Your task to perform on an android device: Open ESPN.com Image 0: 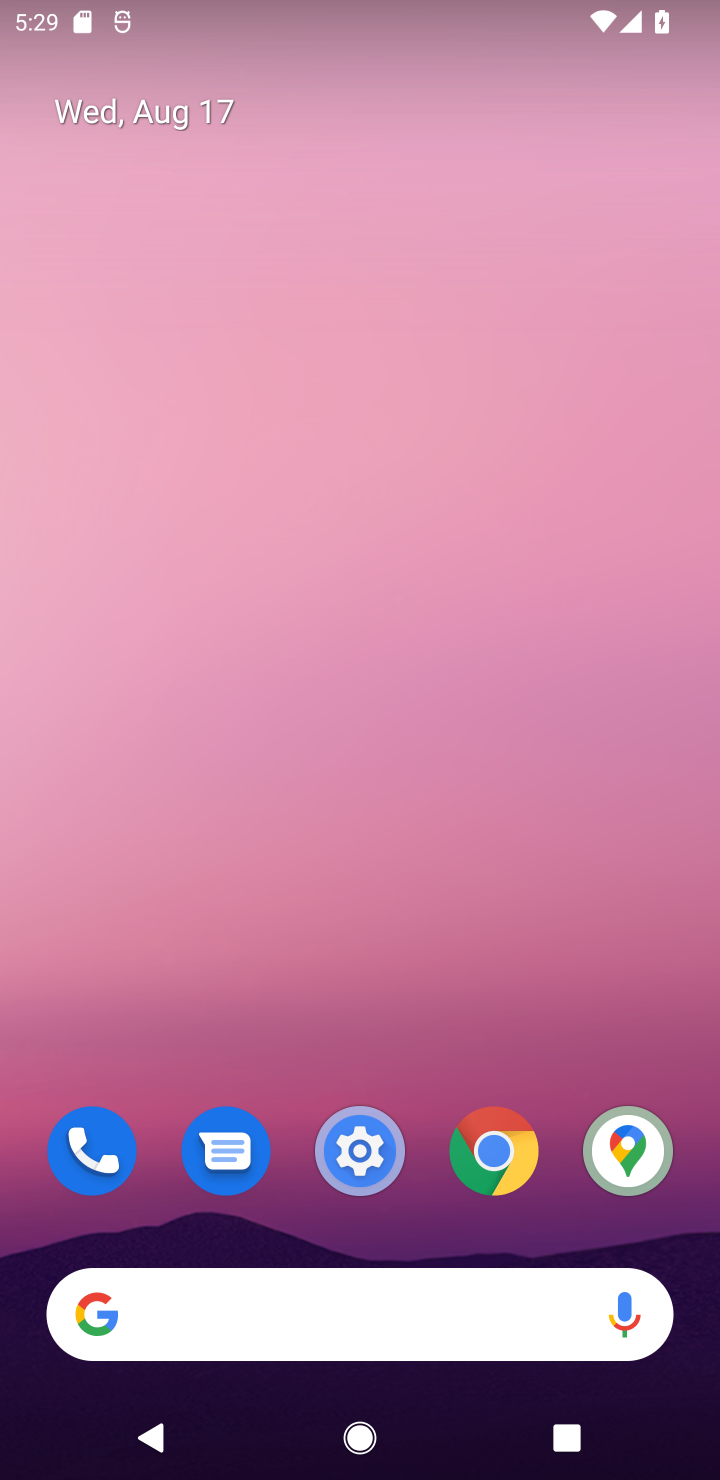
Step 0: drag from (422, 1256) to (435, 484)
Your task to perform on an android device: Open ESPN.com Image 1: 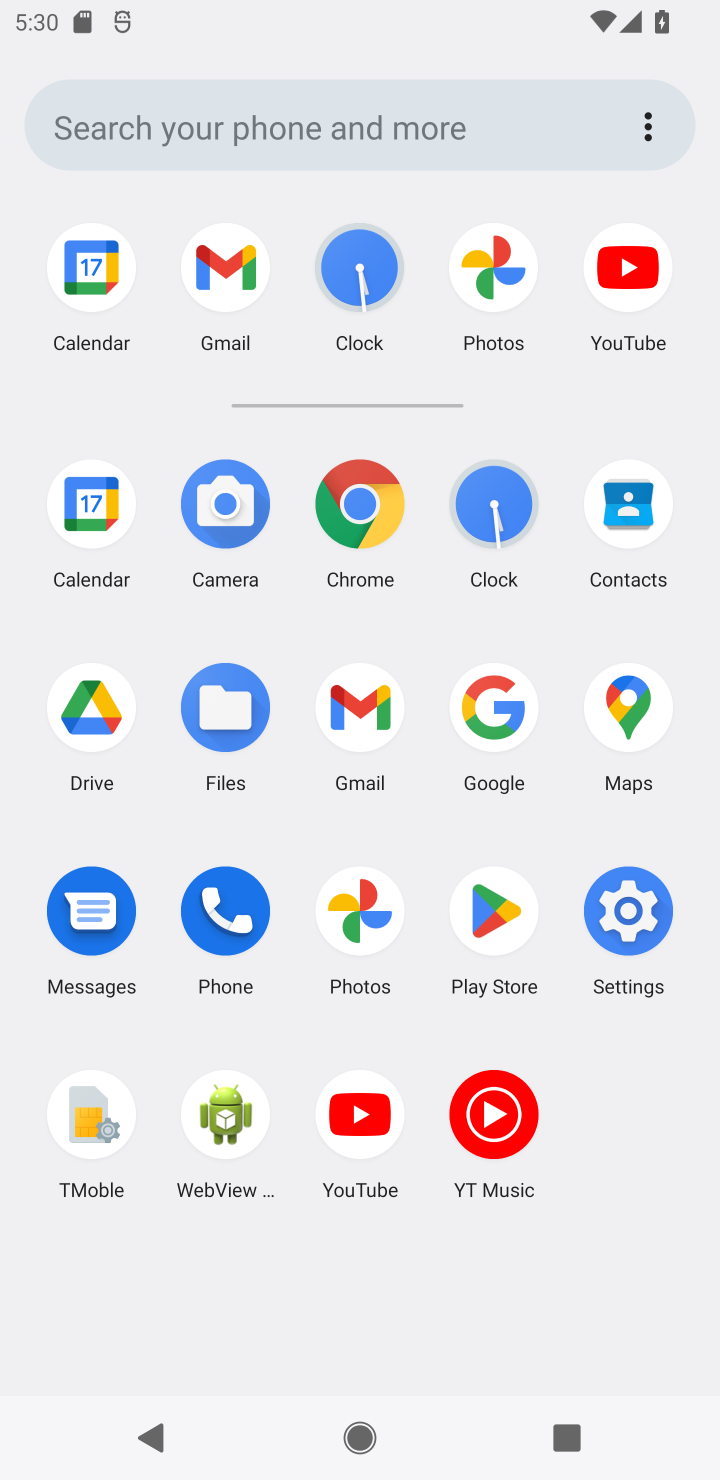
Step 1: click (369, 502)
Your task to perform on an android device: Open ESPN.com Image 2: 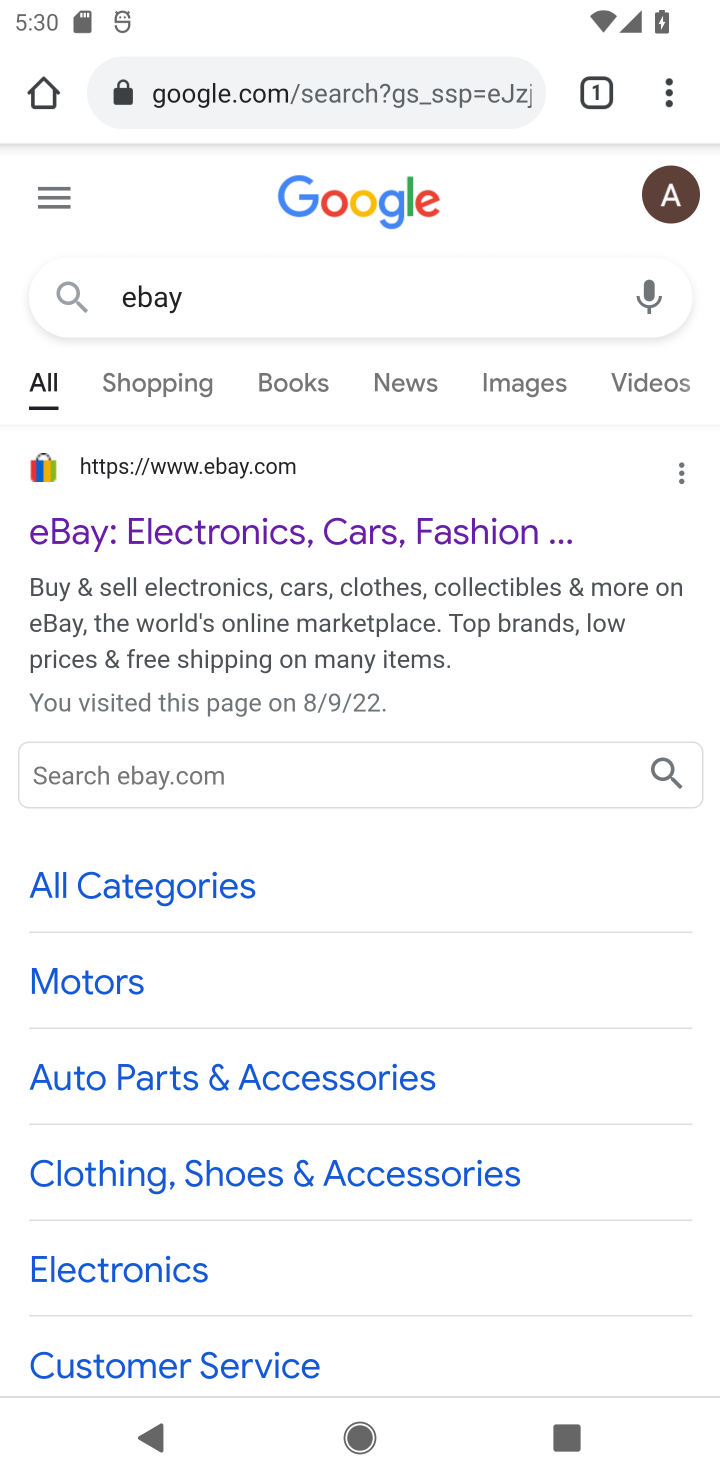
Step 2: click (290, 124)
Your task to perform on an android device: Open ESPN.com Image 3: 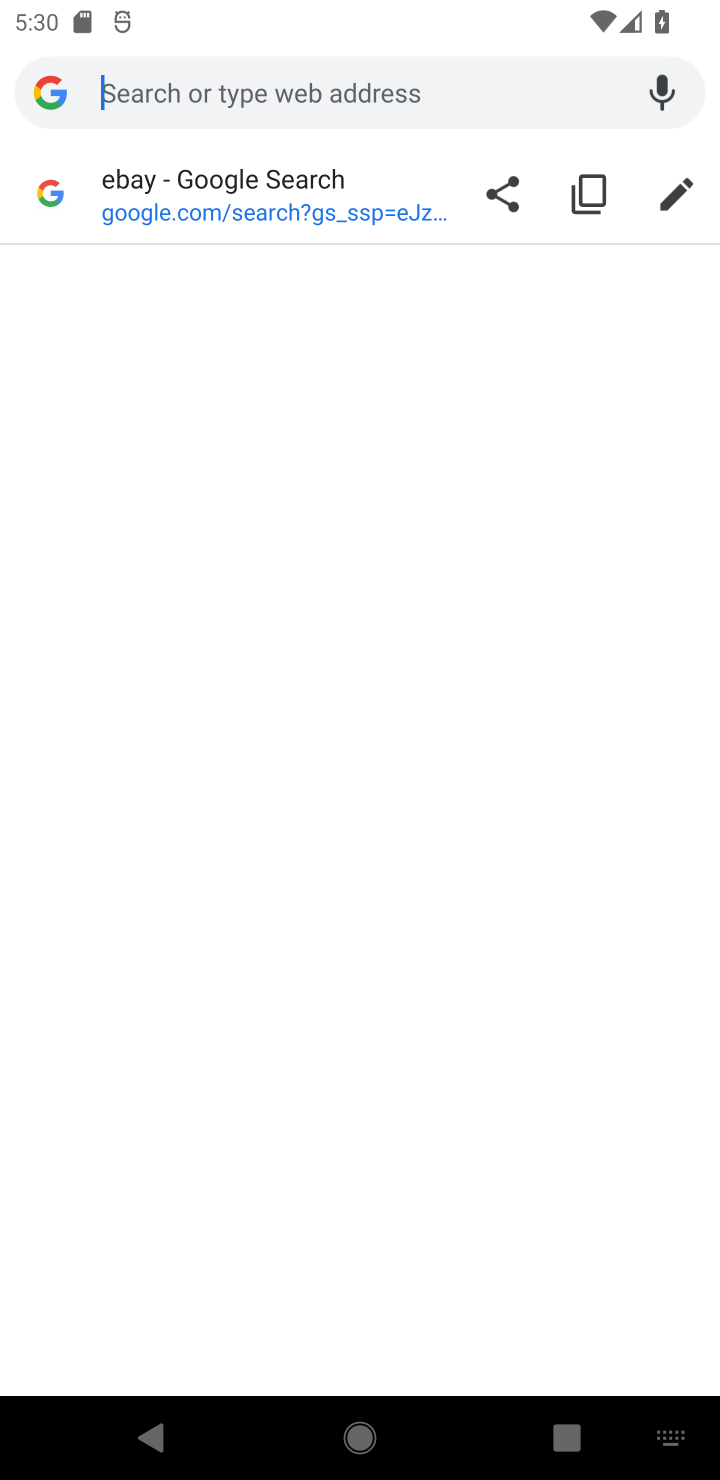
Step 3: click (141, 100)
Your task to perform on an android device: Open ESPN.com Image 4: 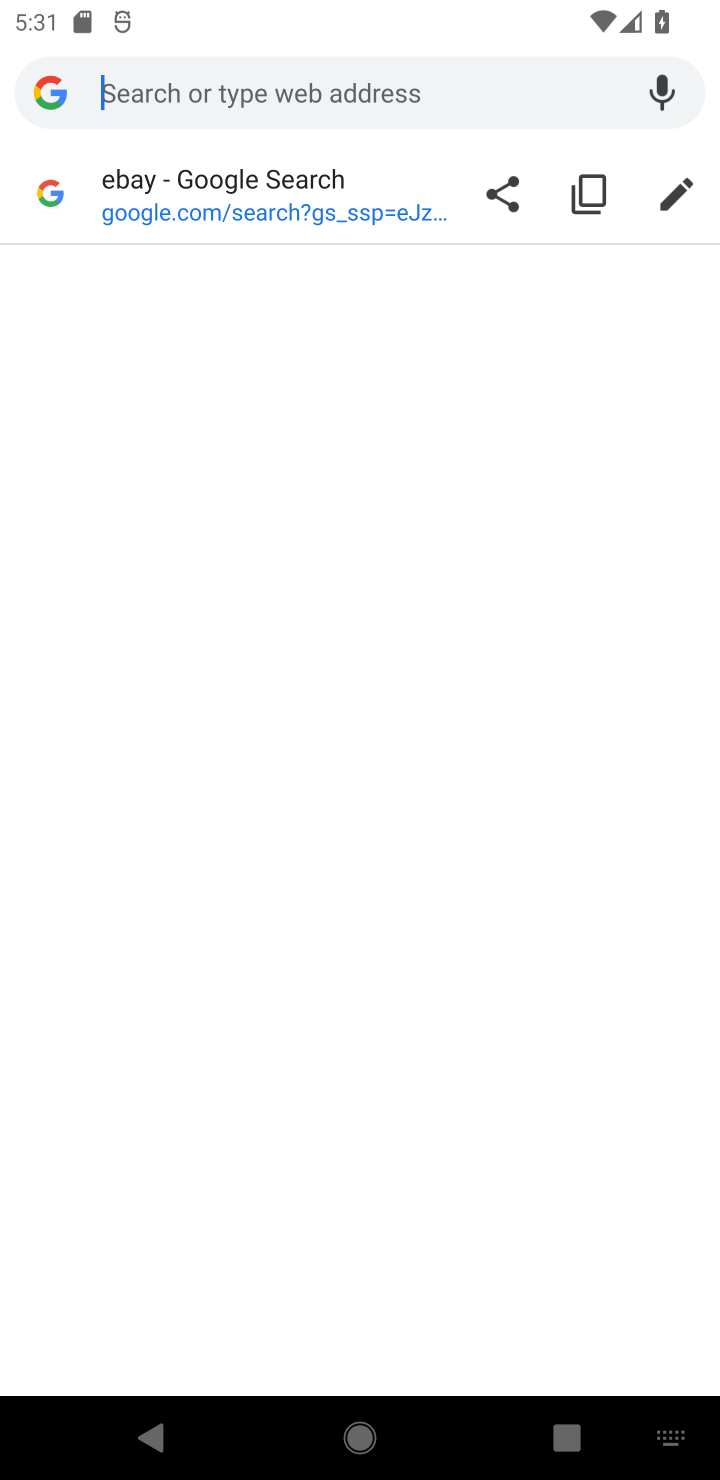
Step 4: type "espn.com"
Your task to perform on an android device: Open ESPN.com Image 5: 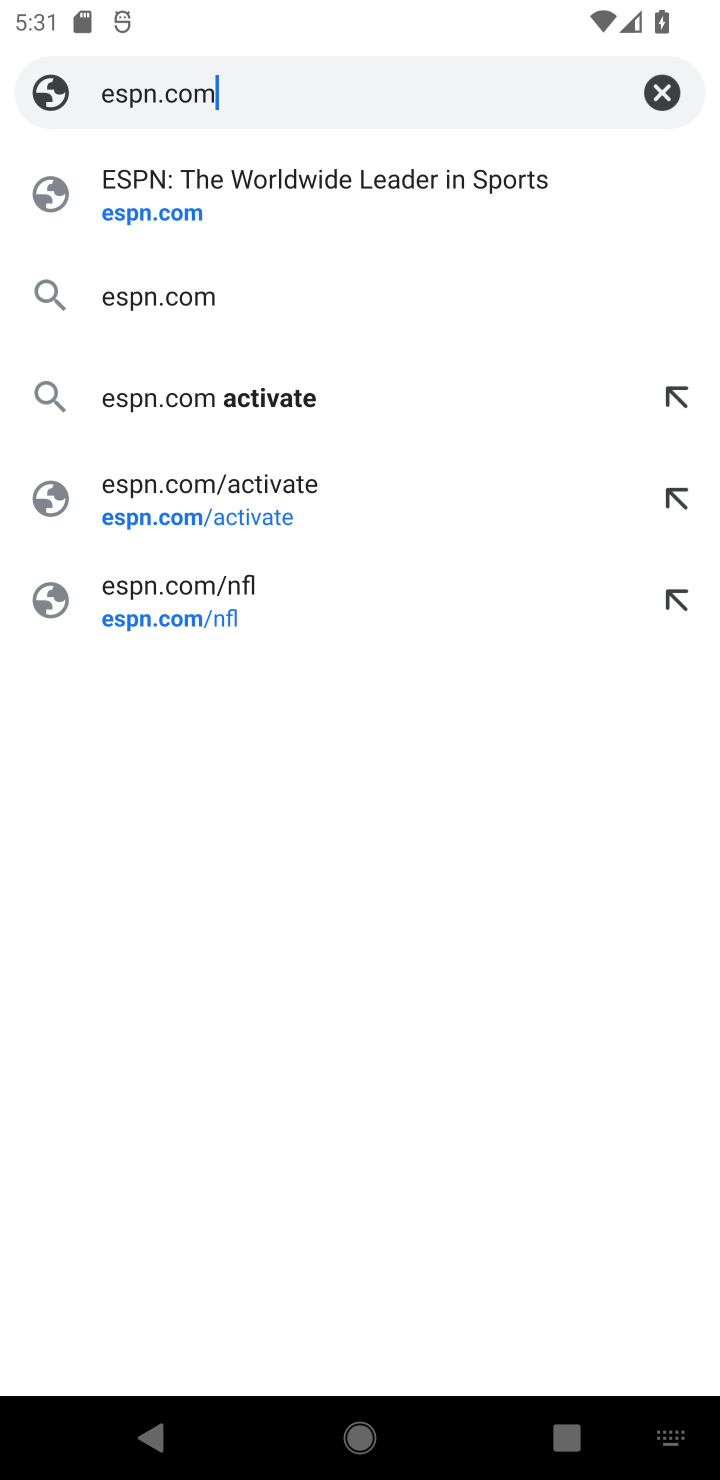
Step 5: click (267, 185)
Your task to perform on an android device: Open ESPN.com Image 6: 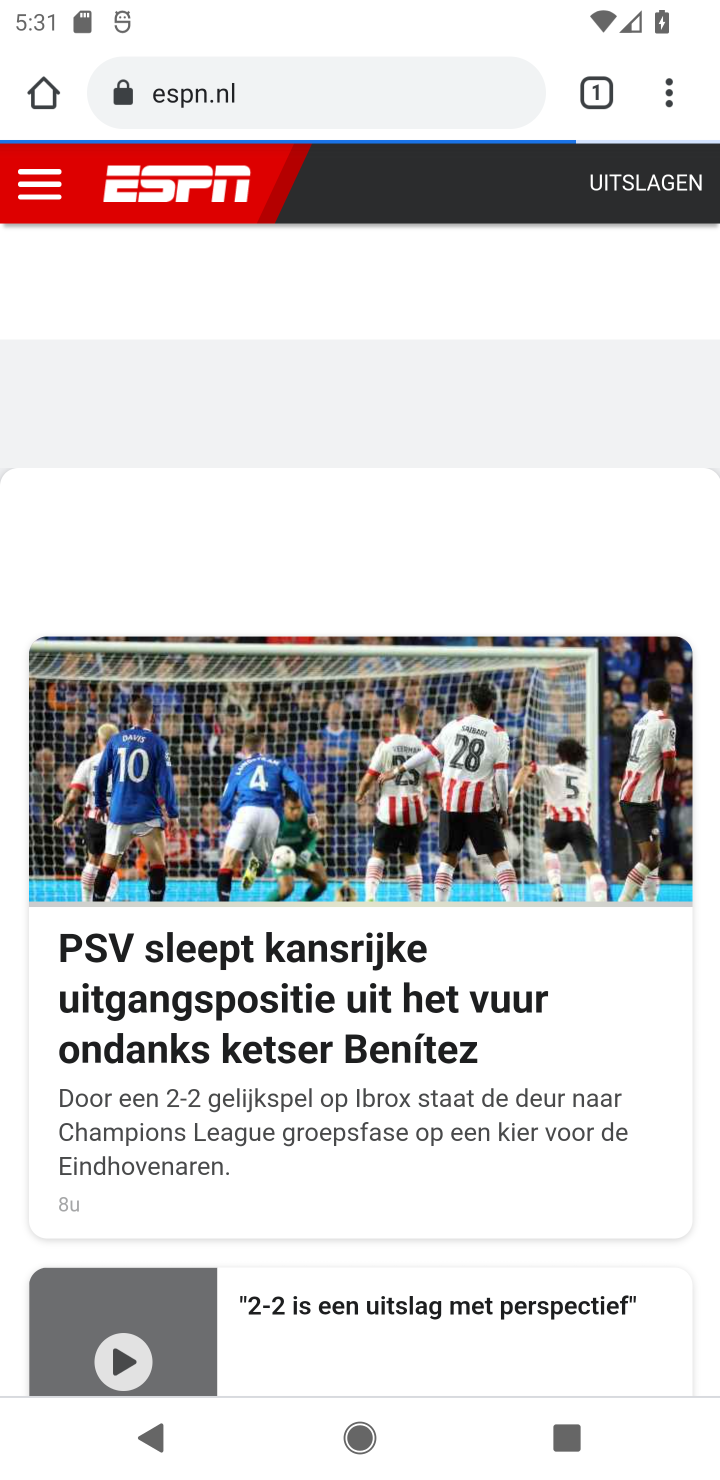
Step 6: task complete